Your task to perform on an android device: refresh tabs in the chrome app Image 0: 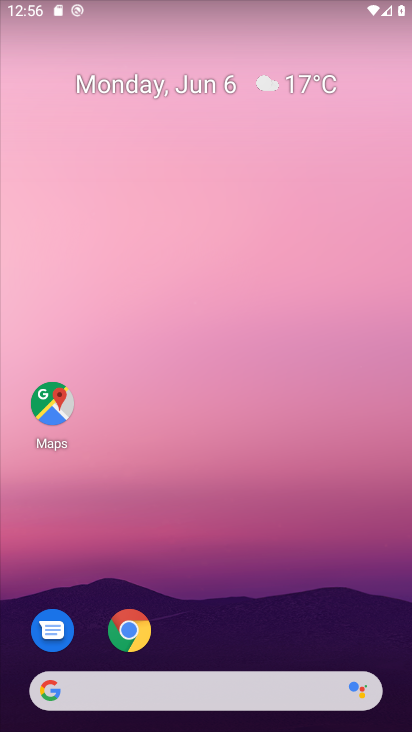
Step 0: click (140, 642)
Your task to perform on an android device: refresh tabs in the chrome app Image 1: 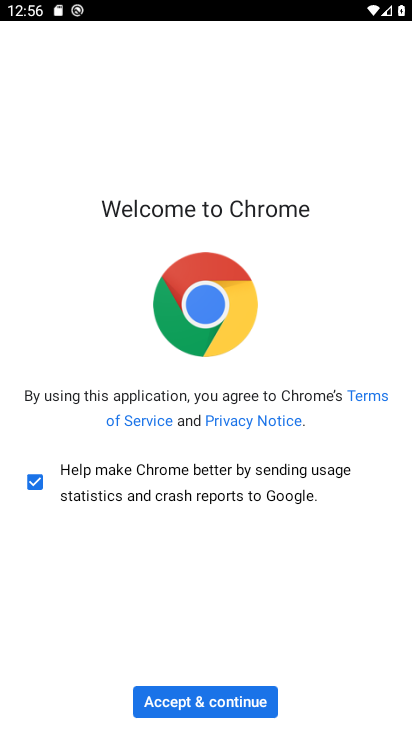
Step 1: click (247, 708)
Your task to perform on an android device: refresh tabs in the chrome app Image 2: 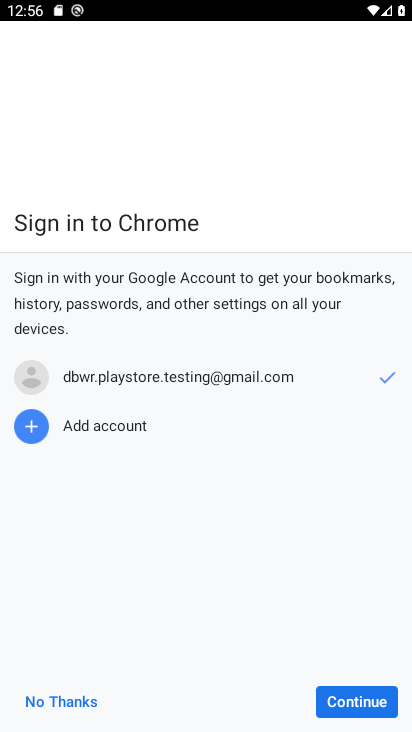
Step 2: click (328, 714)
Your task to perform on an android device: refresh tabs in the chrome app Image 3: 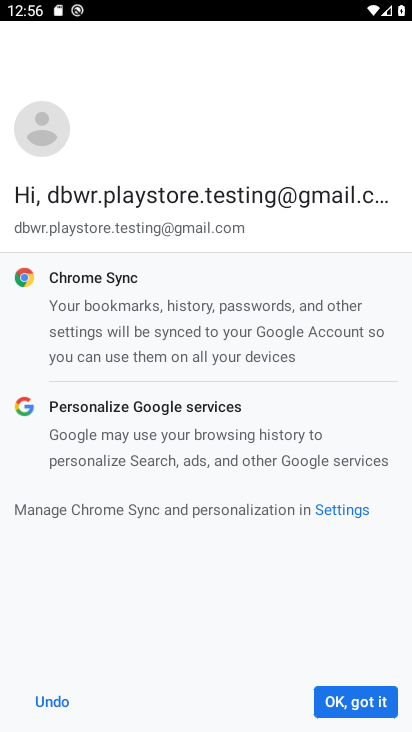
Step 3: click (328, 714)
Your task to perform on an android device: refresh tabs in the chrome app Image 4: 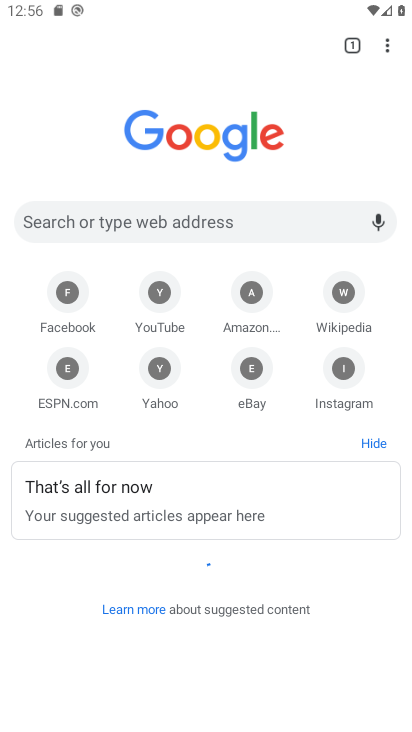
Step 4: click (389, 50)
Your task to perform on an android device: refresh tabs in the chrome app Image 5: 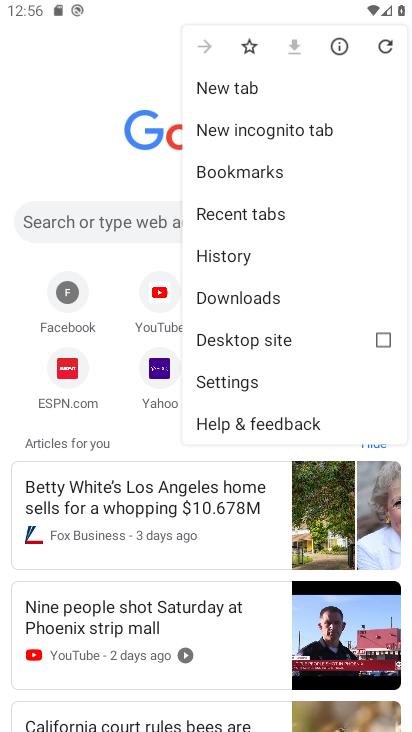
Step 5: click (391, 47)
Your task to perform on an android device: refresh tabs in the chrome app Image 6: 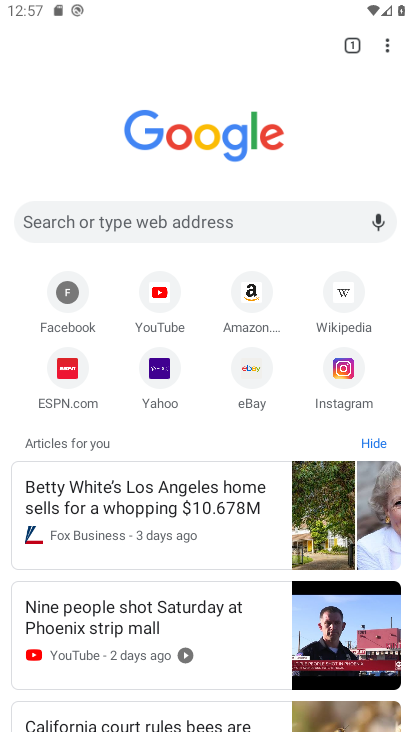
Step 6: click (388, 49)
Your task to perform on an android device: refresh tabs in the chrome app Image 7: 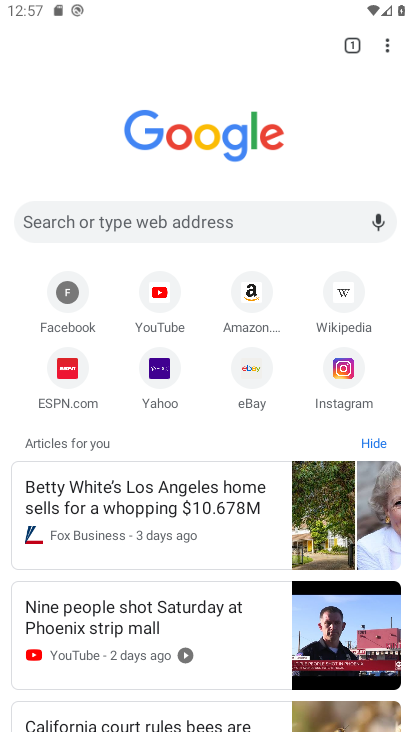
Step 7: task complete